Your task to perform on an android device: turn off smart reply in the gmail app Image 0: 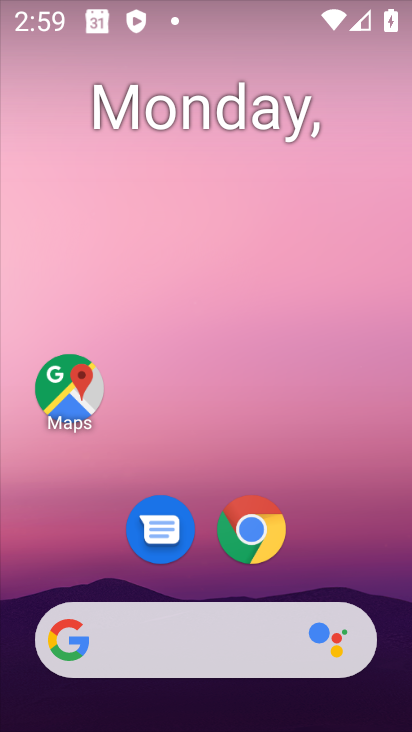
Step 0: drag from (346, 570) to (275, 176)
Your task to perform on an android device: turn off smart reply in the gmail app Image 1: 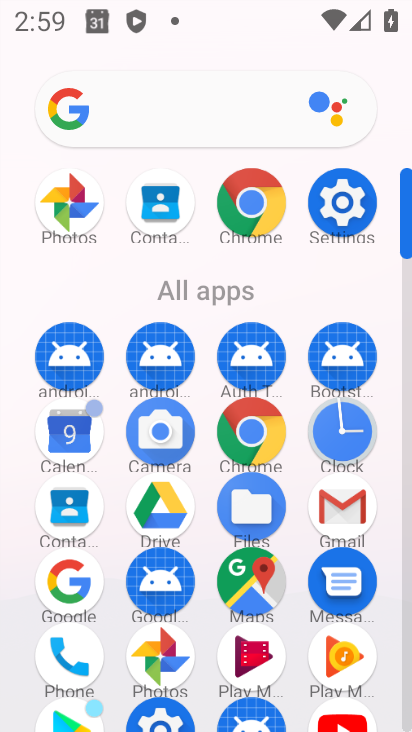
Step 1: click (345, 517)
Your task to perform on an android device: turn off smart reply in the gmail app Image 2: 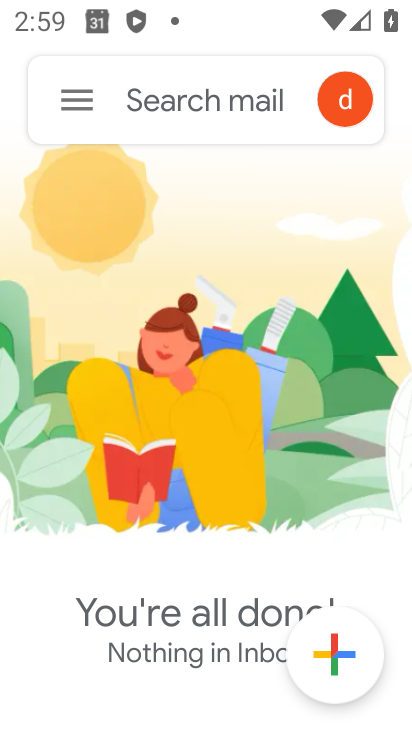
Step 2: click (85, 113)
Your task to perform on an android device: turn off smart reply in the gmail app Image 3: 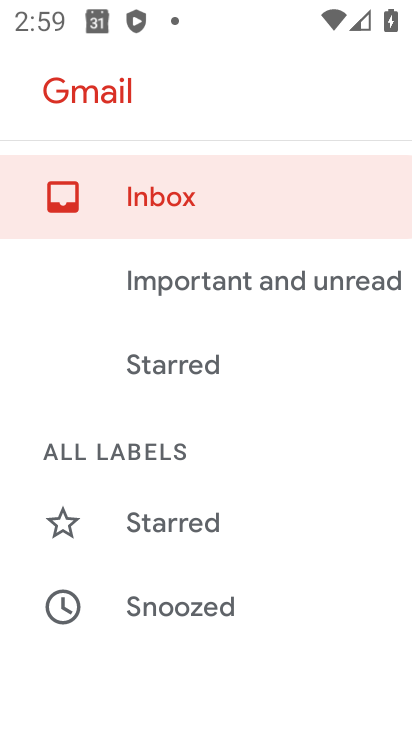
Step 3: drag from (239, 651) to (224, 336)
Your task to perform on an android device: turn off smart reply in the gmail app Image 4: 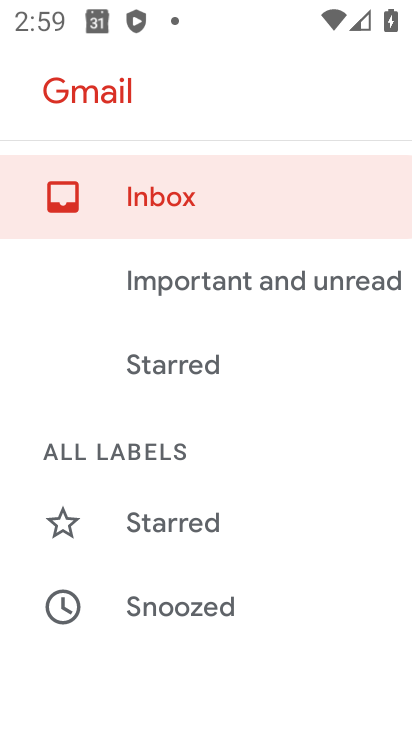
Step 4: drag from (231, 622) to (243, 270)
Your task to perform on an android device: turn off smart reply in the gmail app Image 5: 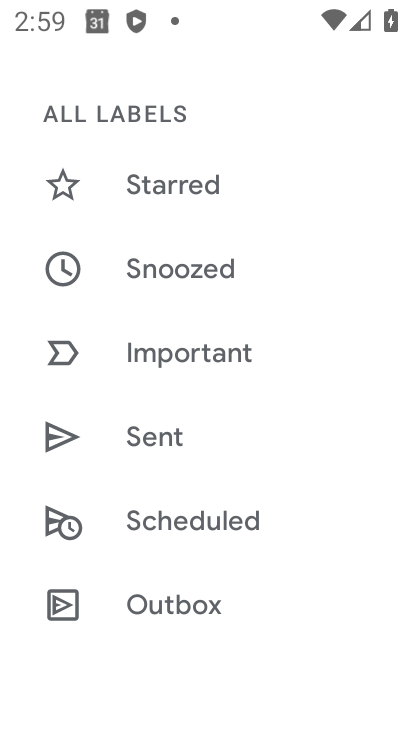
Step 5: drag from (264, 569) to (241, 148)
Your task to perform on an android device: turn off smart reply in the gmail app Image 6: 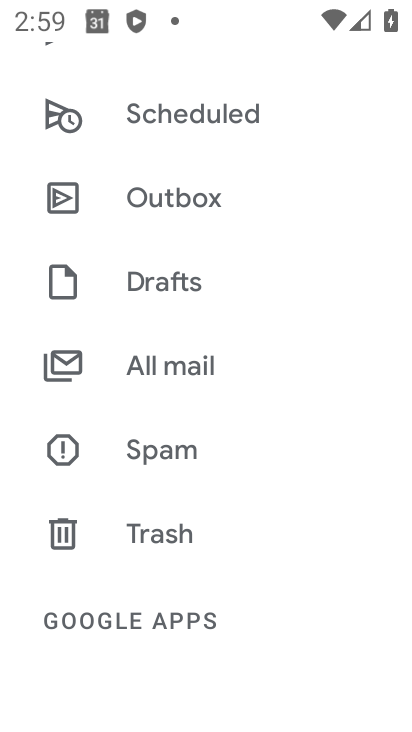
Step 6: drag from (244, 546) to (232, 185)
Your task to perform on an android device: turn off smart reply in the gmail app Image 7: 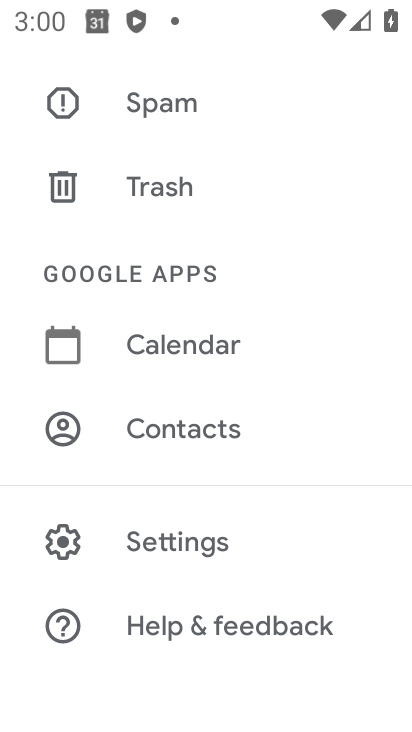
Step 7: click (235, 557)
Your task to perform on an android device: turn off smart reply in the gmail app Image 8: 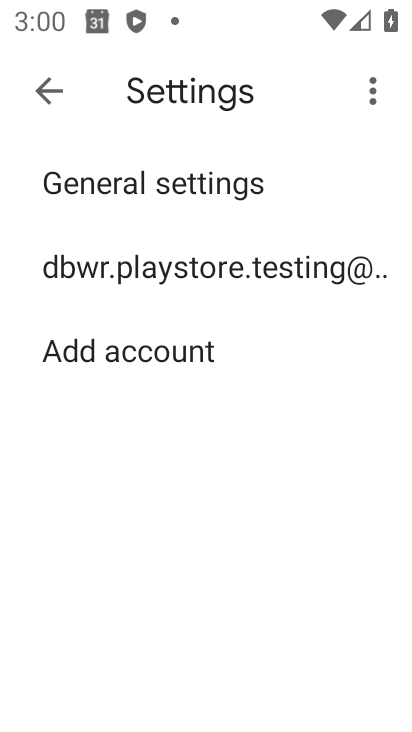
Step 8: click (261, 282)
Your task to perform on an android device: turn off smart reply in the gmail app Image 9: 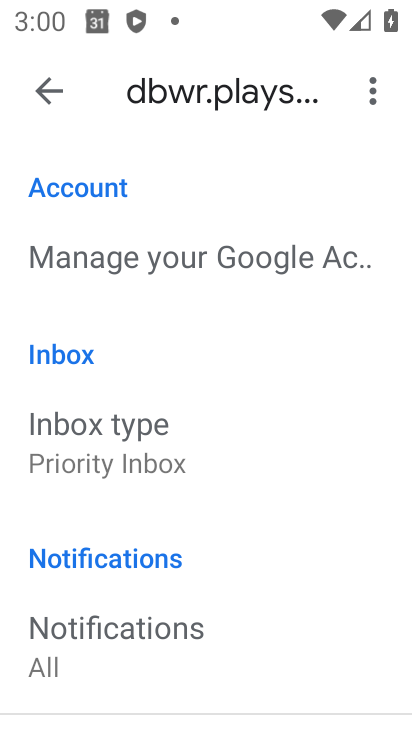
Step 9: drag from (269, 608) to (309, 178)
Your task to perform on an android device: turn off smart reply in the gmail app Image 10: 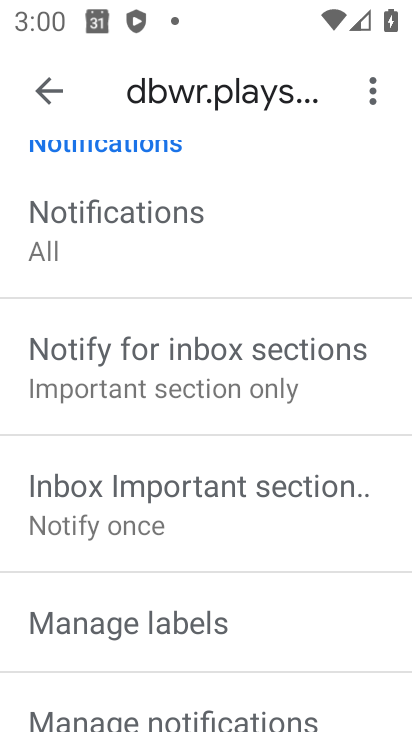
Step 10: drag from (274, 610) to (280, 213)
Your task to perform on an android device: turn off smart reply in the gmail app Image 11: 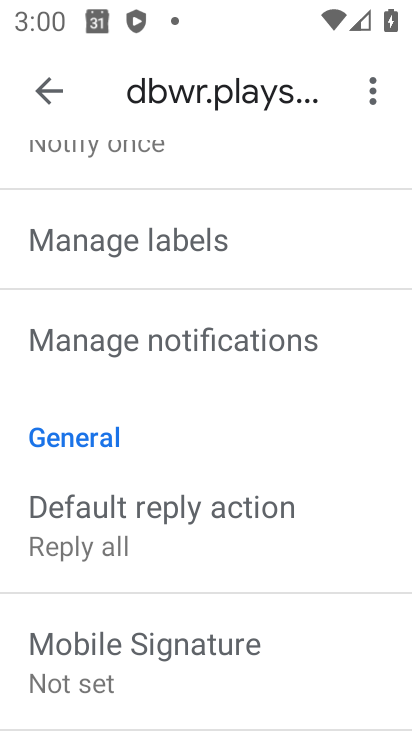
Step 11: drag from (249, 585) to (357, 92)
Your task to perform on an android device: turn off smart reply in the gmail app Image 12: 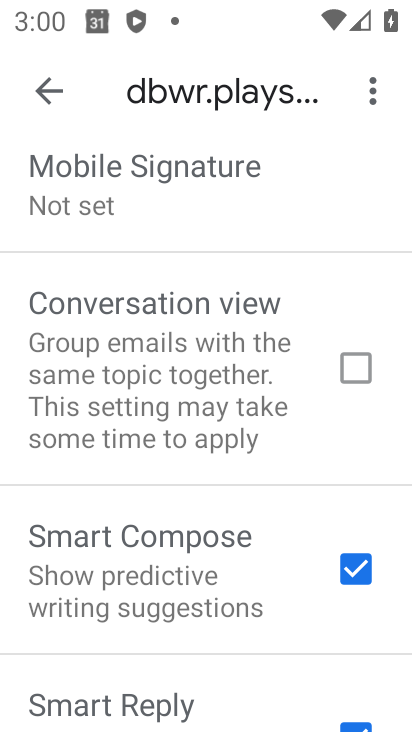
Step 12: drag from (213, 647) to (287, 309)
Your task to perform on an android device: turn off smart reply in the gmail app Image 13: 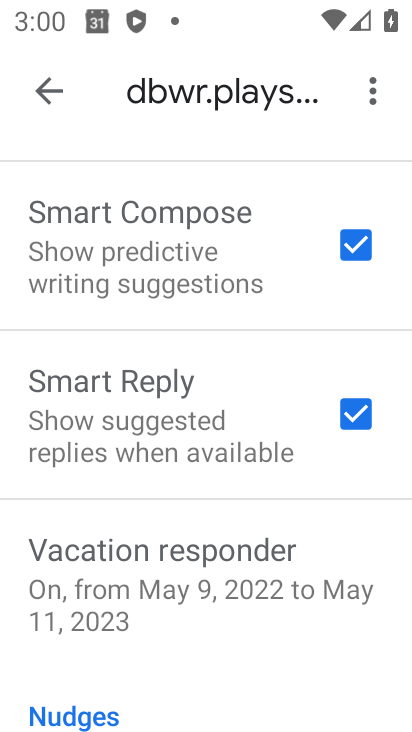
Step 13: click (339, 434)
Your task to perform on an android device: turn off smart reply in the gmail app Image 14: 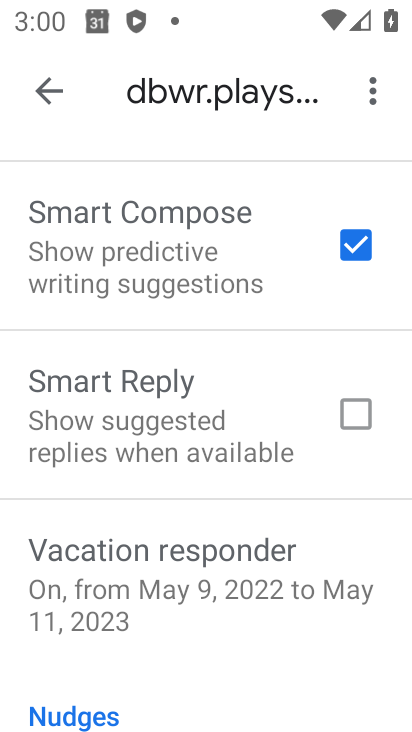
Step 14: task complete